Your task to perform on an android device: Open CNN.com Image 0: 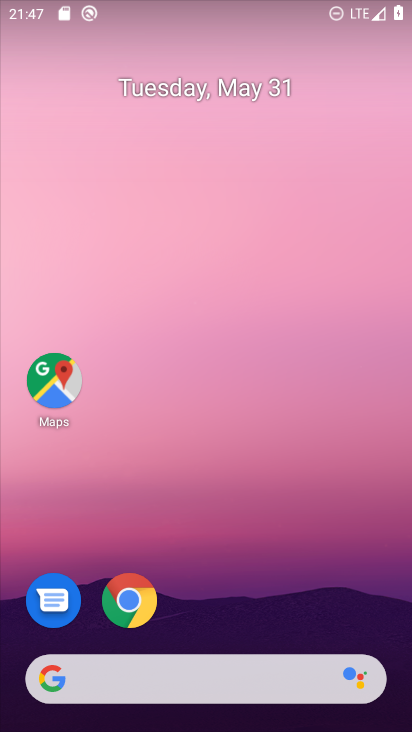
Step 0: click (115, 602)
Your task to perform on an android device: Open CNN.com Image 1: 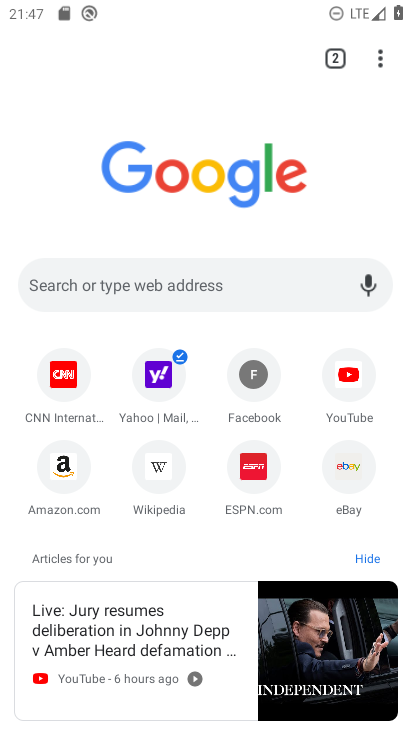
Step 1: click (70, 375)
Your task to perform on an android device: Open CNN.com Image 2: 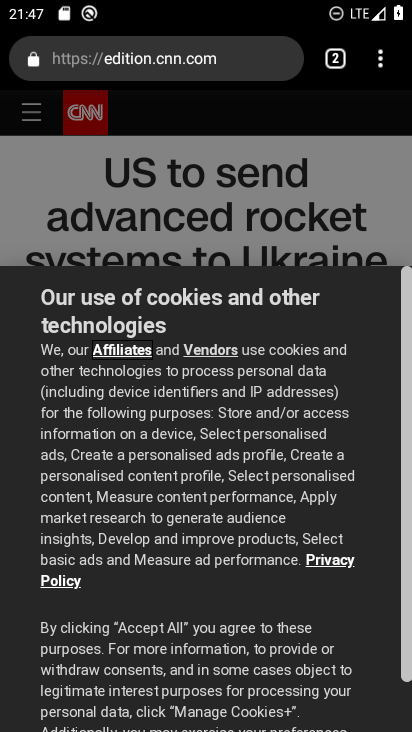
Step 2: task complete